Your task to perform on an android device: empty trash in google photos Image 0: 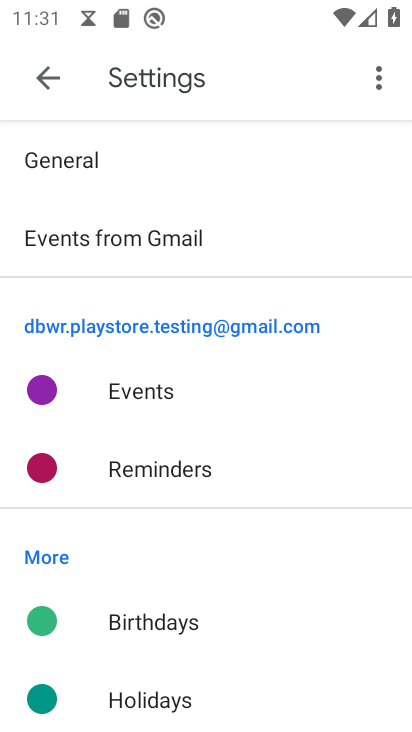
Step 0: press home button
Your task to perform on an android device: empty trash in google photos Image 1: 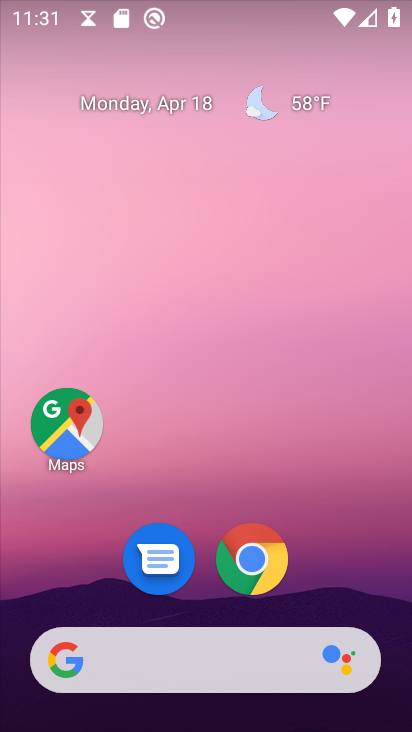
Step 1: drag from (337, 525) to (272, 85)
Your task to perform on an android device: empty trash in google photos Image 2: 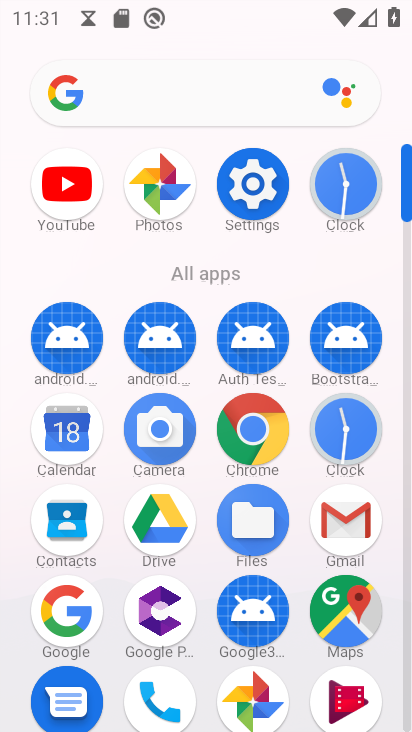
Step 2: click (164, 182)
Your task to perform on an android device: empty trash in google photos Image 3: 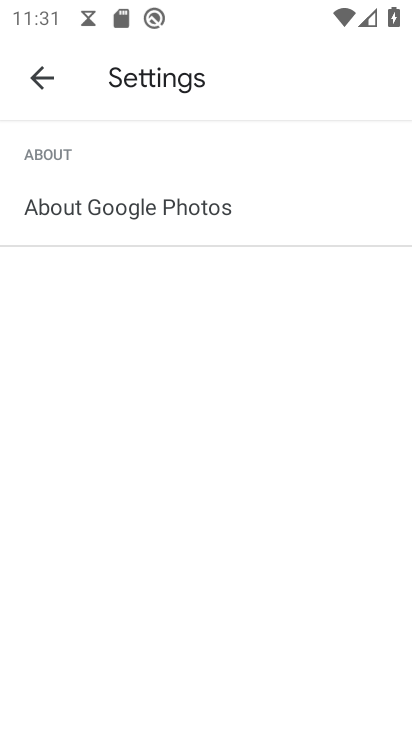
Step 3: click (31, 87)
Your task to perform on an android device: empty trash in google photos Image 4: 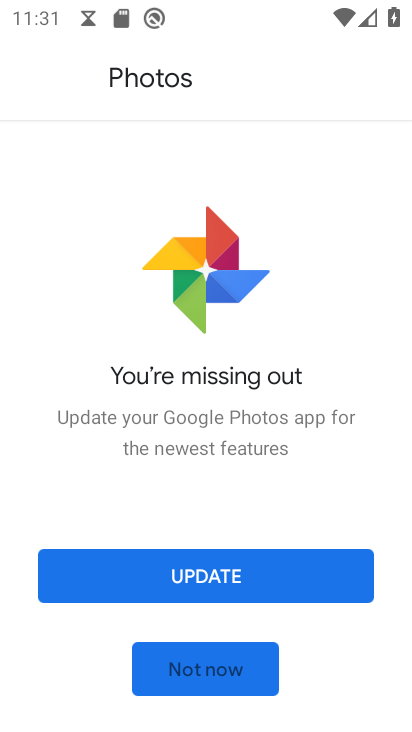
Step 4: click (247, 663)
Your task to perform on an android device: empty trash in google photos Image 5: 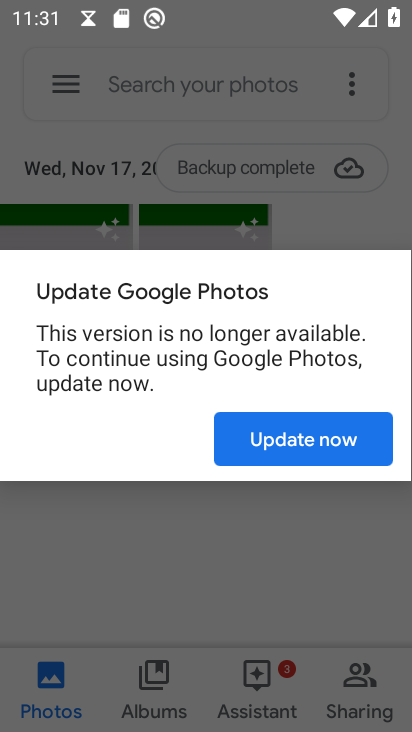
Step 5: click (301, 422)
Your task to perform on an android device: empty trash in google photos Image 6: 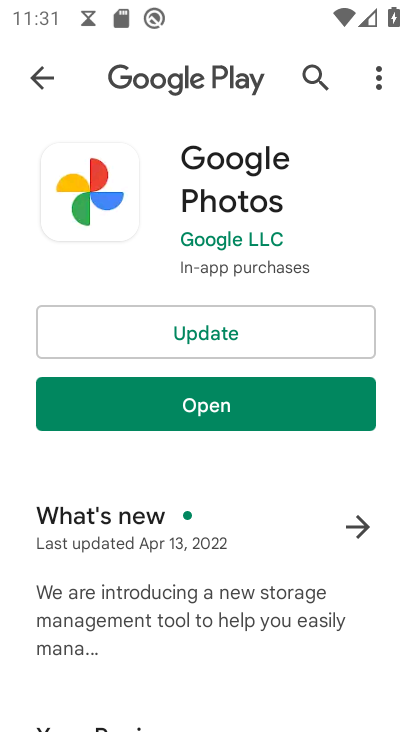
Step 6: click (226, 342)
Your task to perform on an android device: empty trash in google photos Image 7: 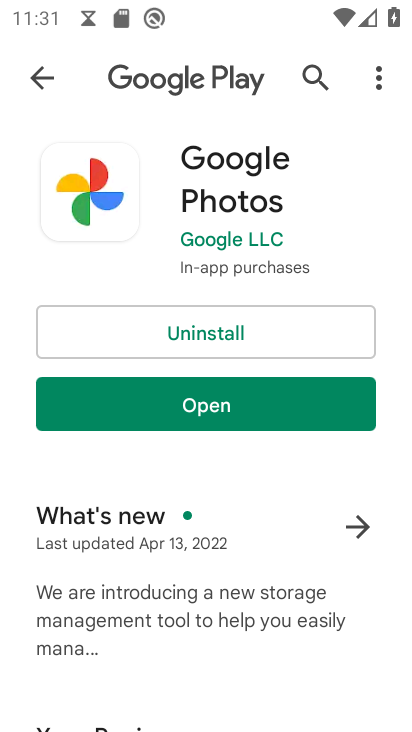
Step 7: click (196, 399)
Your task to perform on an android device: empty trash in google photos Image 8: 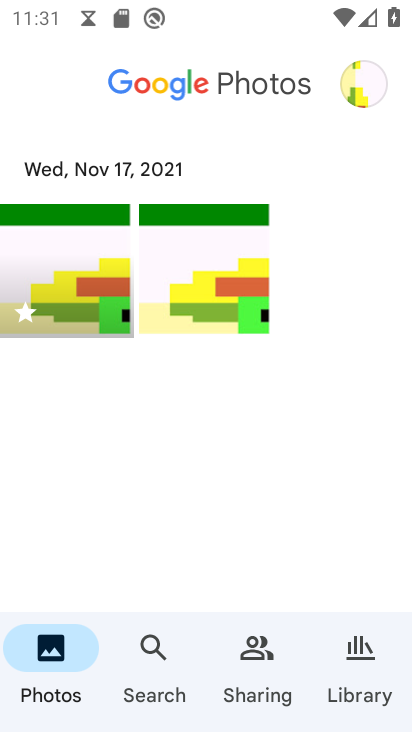
Step 8: click (367, 664)
Your task to perform on an android device: empty trash in google photos Image 9: 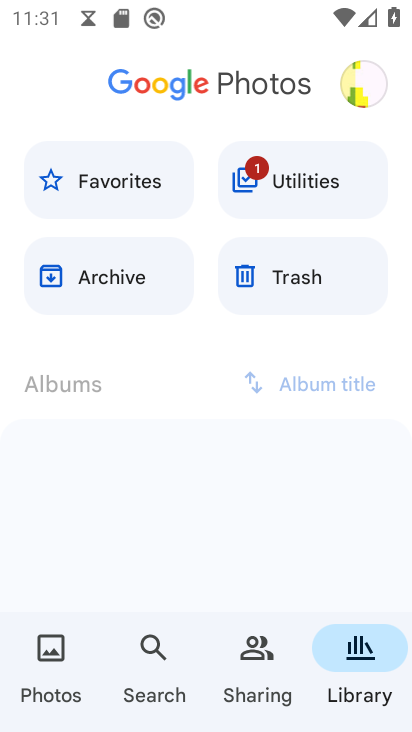
Step 9: click (291, 265)
Your task to perform on an android device: empty trash in google photos Image 10: 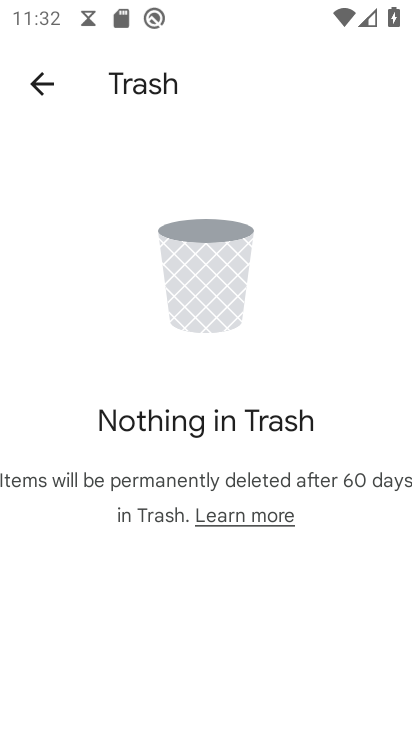
Step 10: task complete